Your task to perform on an android device: What's the weather today? Image 0: 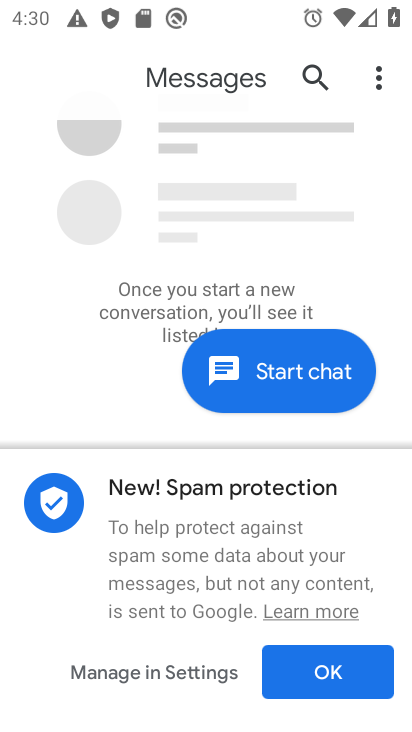
Step 0: press home button
Your task to perform on an android device: What's the weather today? Image 1: 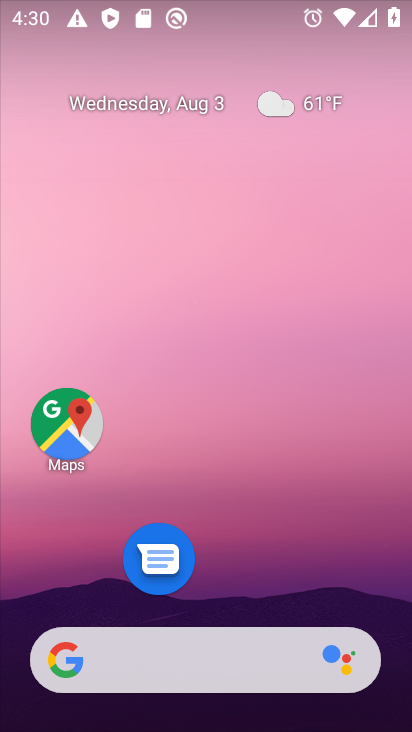
Step 1: drag from (207, 608) to (212, 133)
Your task to perform on an android device: What's the weather today? Image 2: 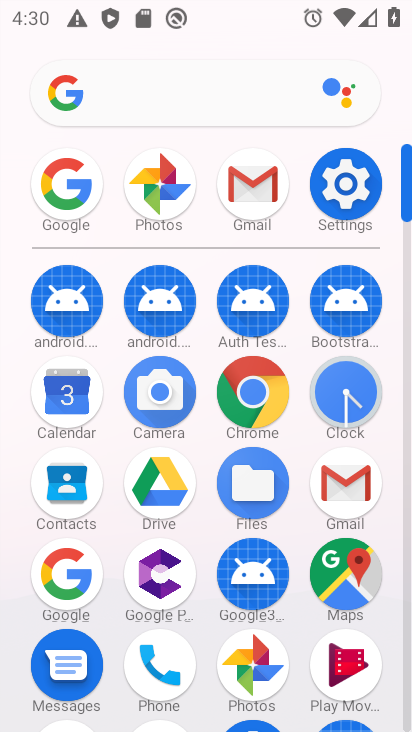
Step 2: click (47, 588)
Your task to perform on an android device: What's the weather today? Image 3: 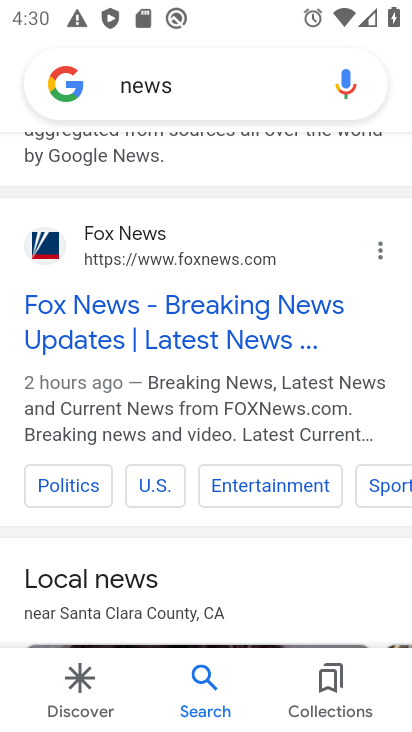
Step 3: click (194, 88)
Your task to perform on an android device: What's the weather today? Image 4: 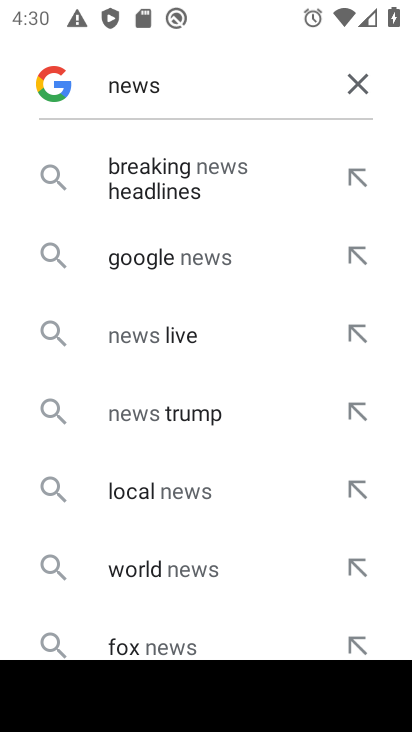
Step 4: click (346, 85)
Your task to perform on an android device: What's the weather today? Image 5: 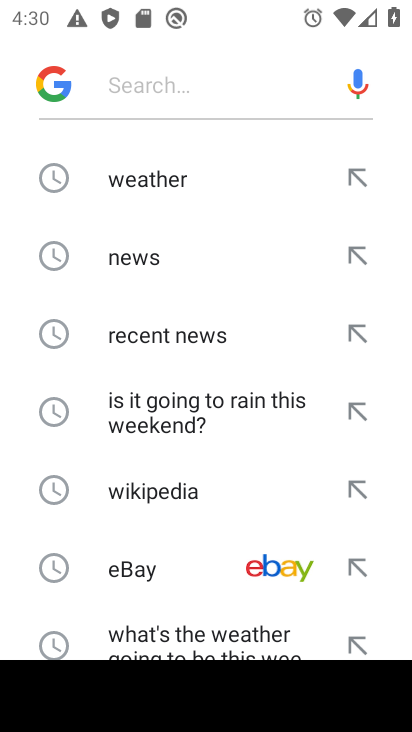
Step 5: click (162, 178)
Your task to perform on an android device: What's the weather today? Image 6: 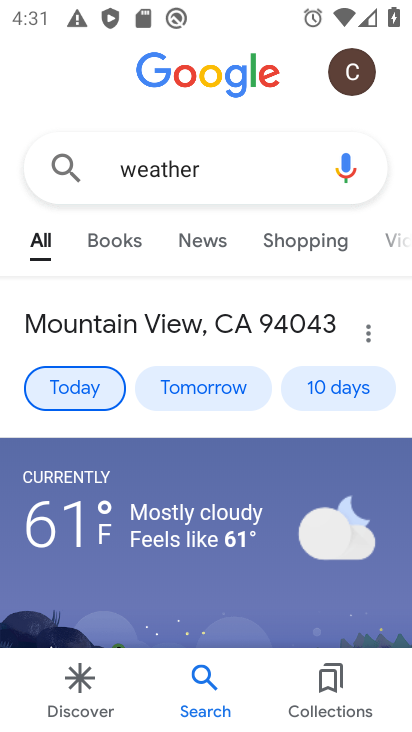
Step 6: task complete